Your task to perform on an android device: Is it going to rain today? Image 0: 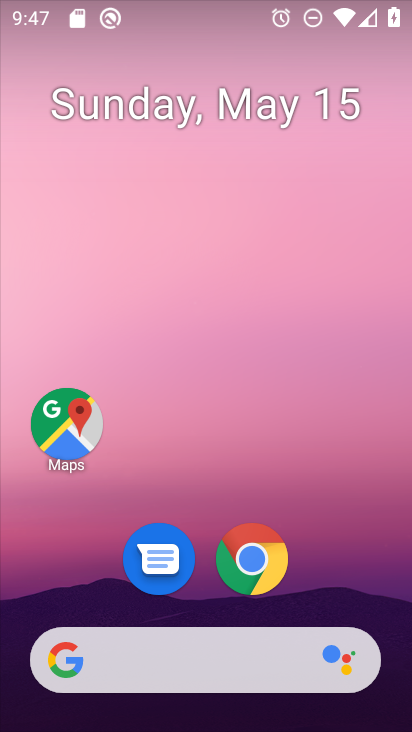
Step 0: click (234, 648)
Your task to perform on an android device: Is it going to rain today? Image 1: 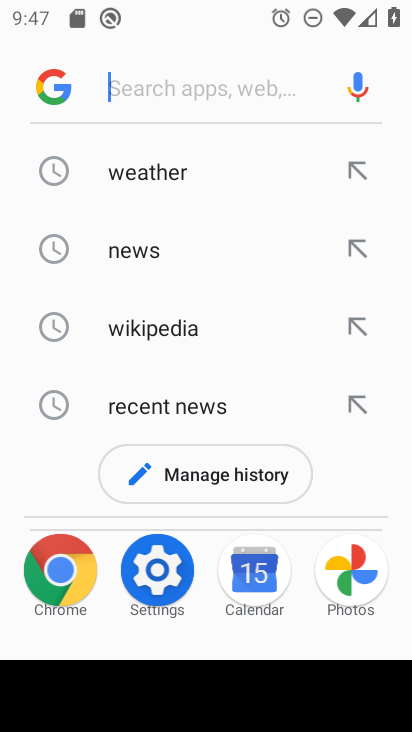
Step 1: click (179, 184)
Your task to perform on an android device: Is it going to rain today? Image 2: 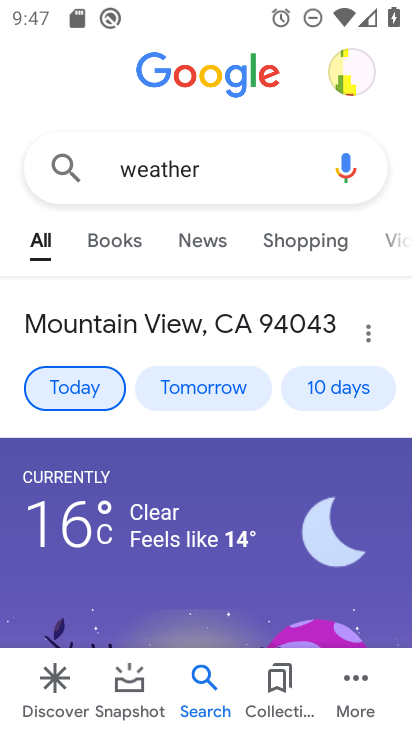
Step 2: task complete